Your task to perform on an android device: turn vacation reply on in the gmail app Image 0: 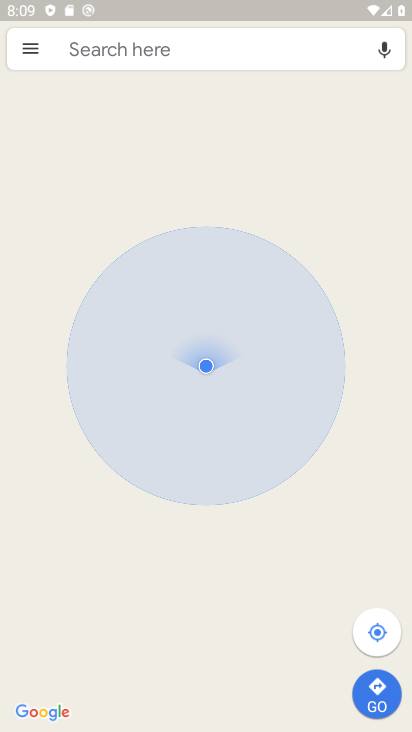
Step 0: press home button
Your task to perform on an android device: turn vacation reply on in the gmail app Image 1: 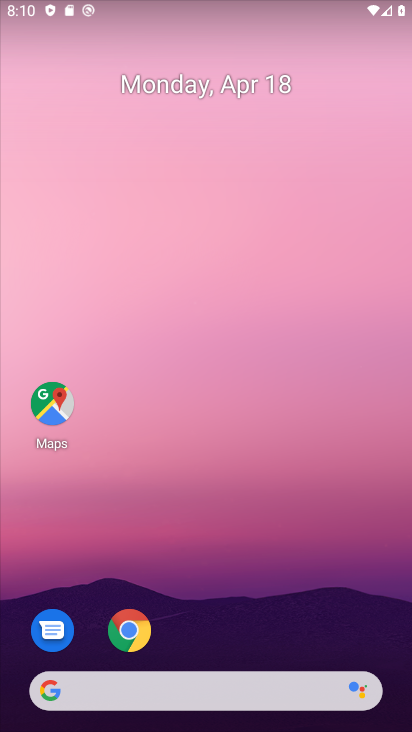
Step 1: drag from (249, 526) to (276, 0)
Your task to perform on an android device: turn vacation reply on in the gmail app Image 2: 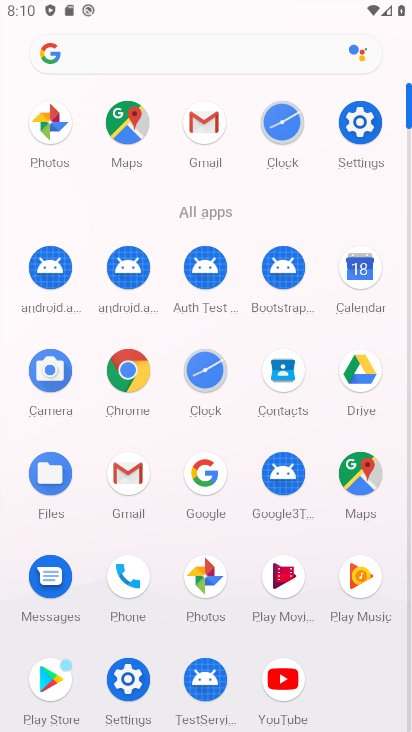
Step 2: click (136, 483)
Your task to perform on an android device: turn vacation reply on in the gmail app Image 3: 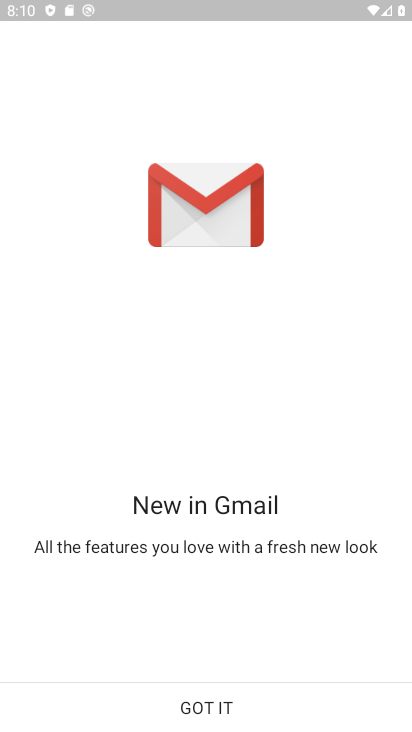
Step 3: click (230, 707)
Your task to perform on an android device: turn vacation reply on in the gmail app Image 4: 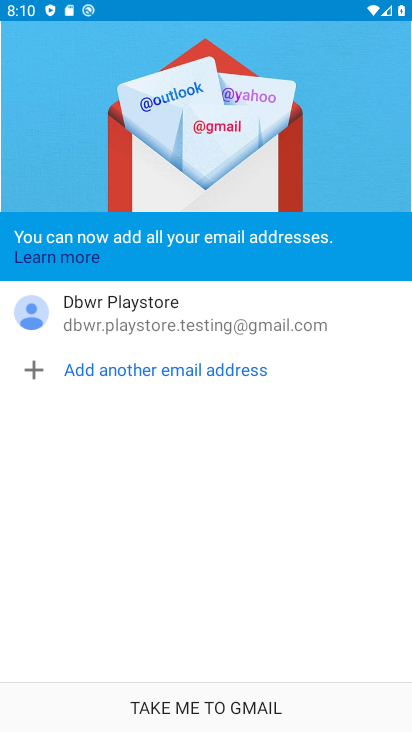
Step 4: click (221, 699)
Your task to perform on an android device: turn vacation reply on in the gmail app Image 5: 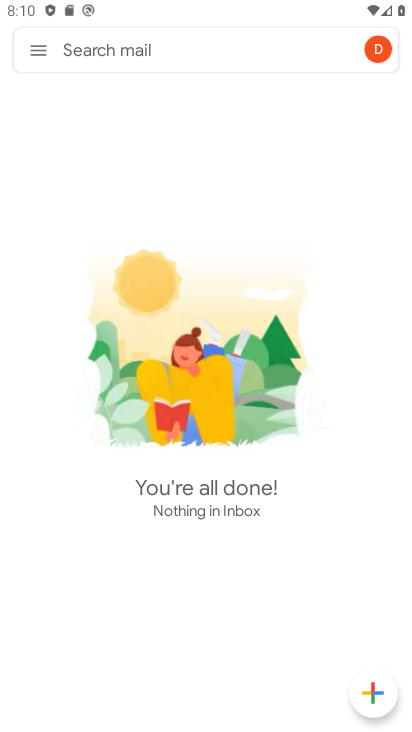
Step 5: click (46, 56)
Your task to perform on an android device: turn vacation reply on in the gmail app Image 6: 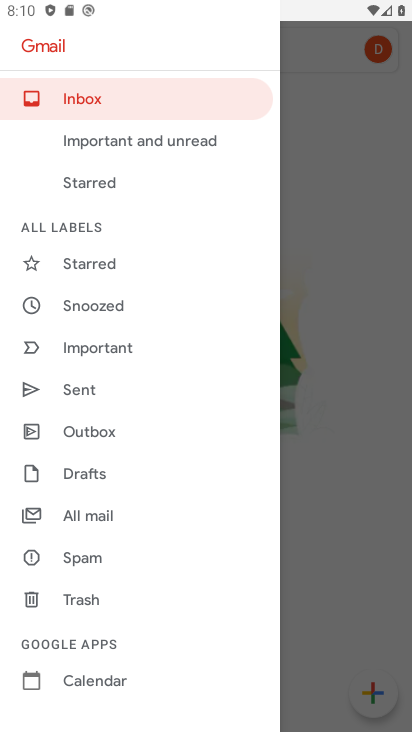
Step 6: drag from (112, 537) to (164, 338)
Your task to perform on an android device: turn vacation reply on in the gmail app Image 7: 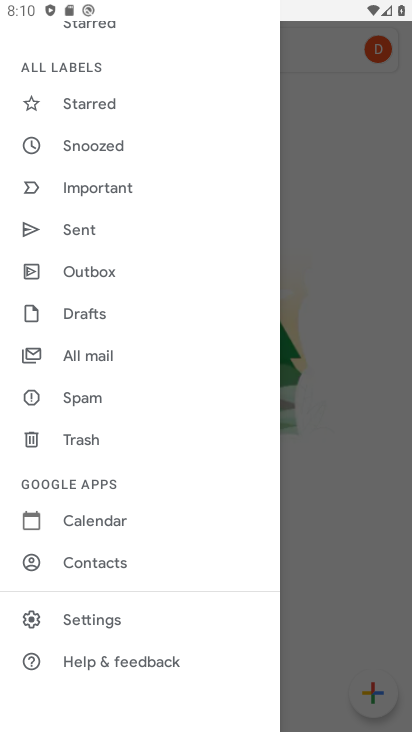
Step 7: click (100, 619)
Your task to perform on an android device: turn vacation reply on in the gmail app Image 8: 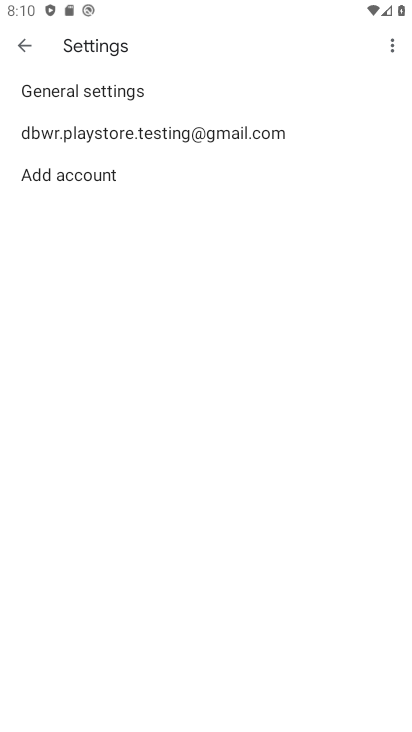
Step 8: click (114, 125)
Your task to perform on an android device: turn vacation reply on in the gmail app Image 9: 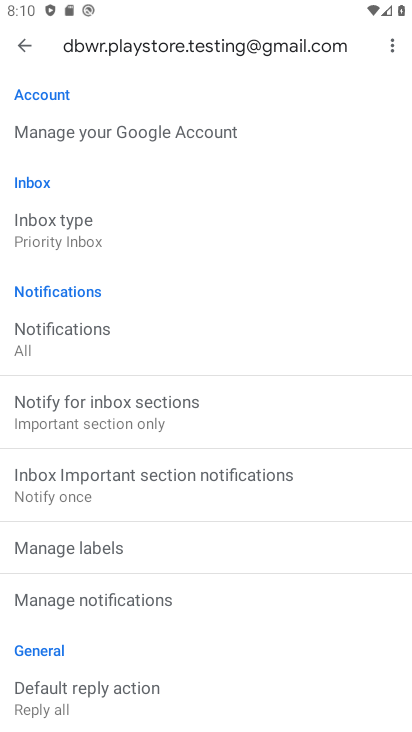
Step 9: drag from (152, 590) to (231, 267)
Your task to perform on an android device: turn vacation reply on in the gmail app Image 10: 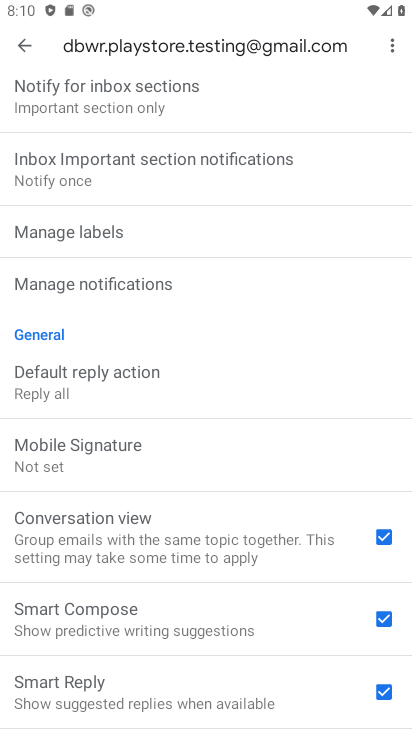
Step 10: drag from (184, 631) to (221, 422)
Your task to perform on an android device: turn vacation reply on in the gmail app Image 11: 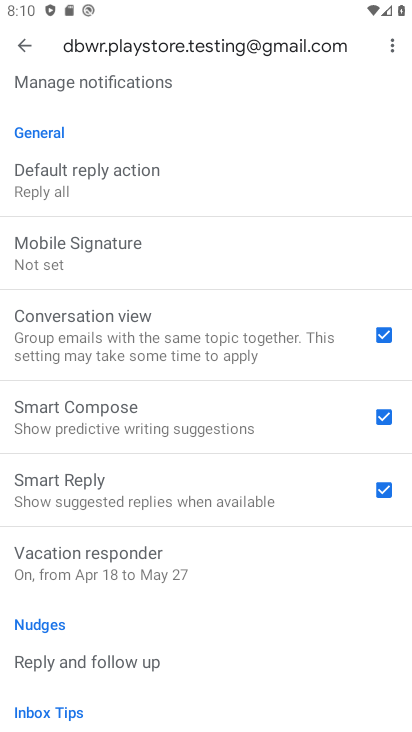
Step 11: click (143, 555)
Your task to perform on an android device: turn vacation reply on in the gmail app Image 12: 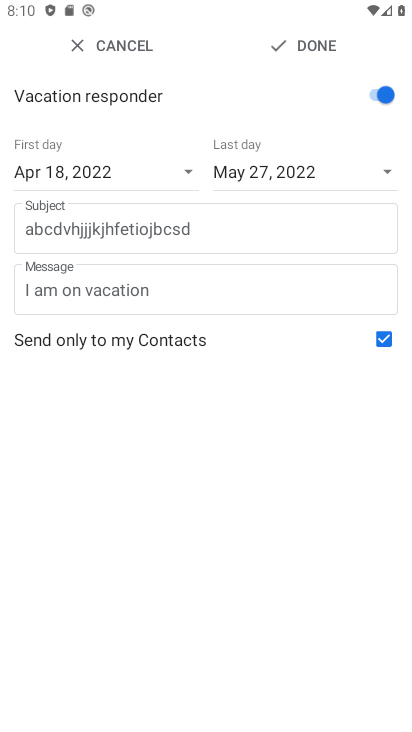
Step 12: task complete